Your task to perform on an android device: move a message to another label in the gmail app Image 0: 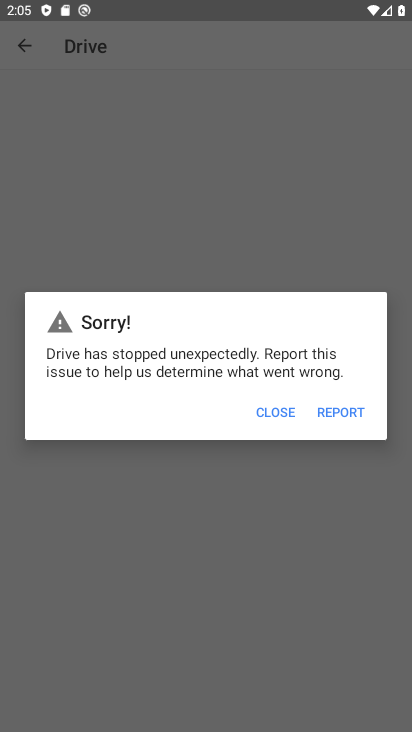
Step 0: press home button
Your task to perform on an android device: move a message to another label in the gmail app Image 1: 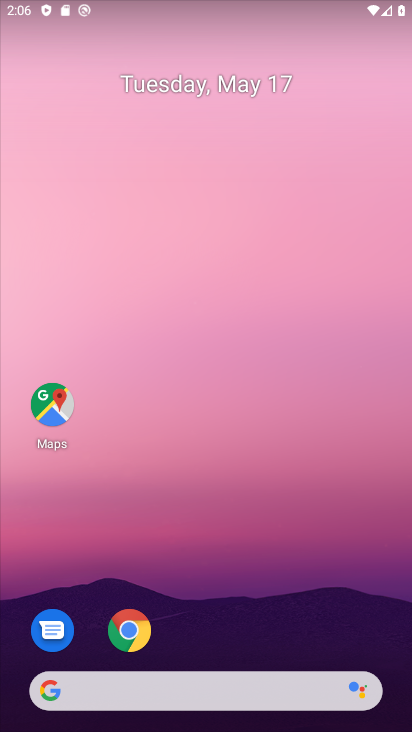
Step 1: drag from (198, 637) to (231, 95)
Your task to perform on an android device: move a message to another label in the gmail app Image 2: 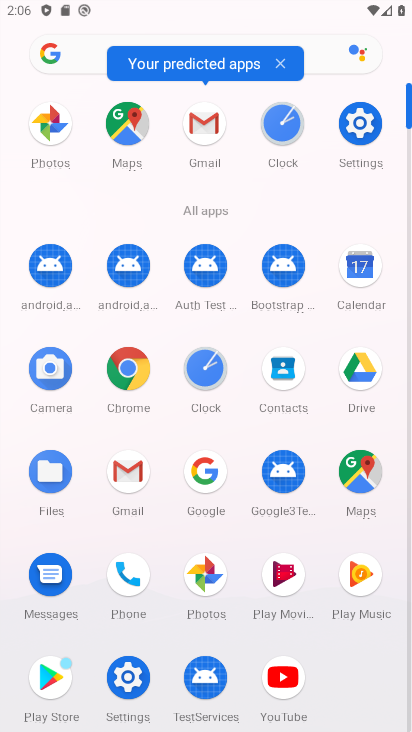
Step 2: click (202, 143)
Your task to perform on an android device: move a message to another label in the gmail app Image 3: 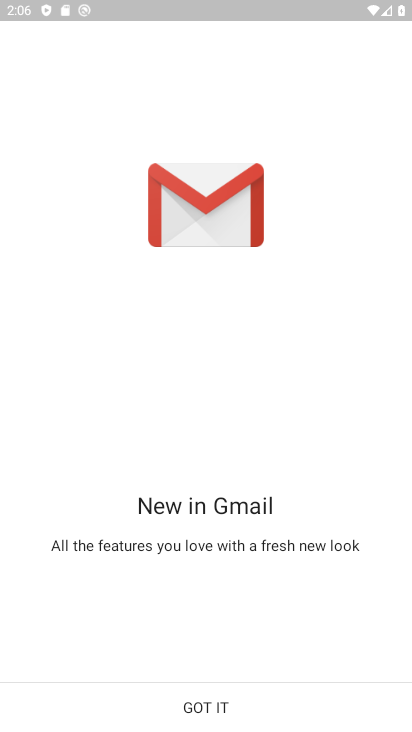
Step 3: click (239, 704)
Your task to perform on an android device: move a message to another label in the gmail app Image 4: 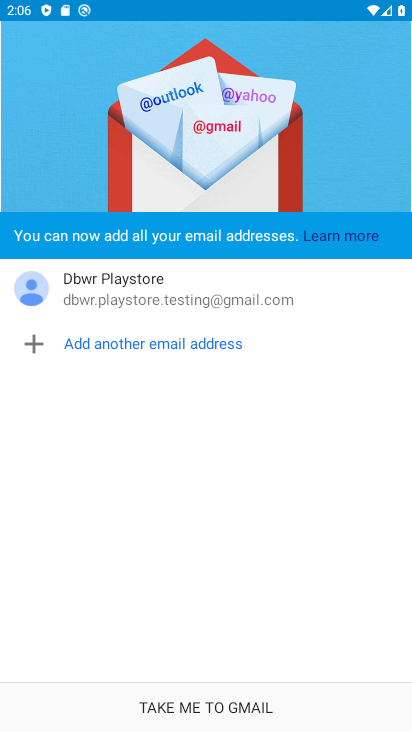
Step 4: click (202, 705)
Your task to perform on an android device: move a message to another label in the gmail app Image 5: 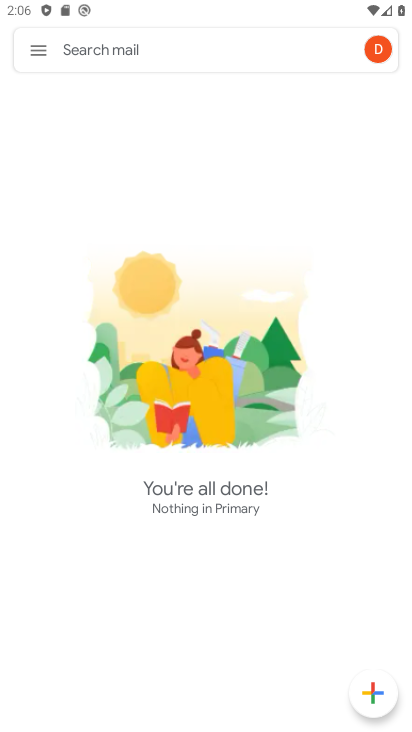
Step 5: click (53, 60)
Your task to perform on an android device: move a message to another label in the gmail app Image 6: 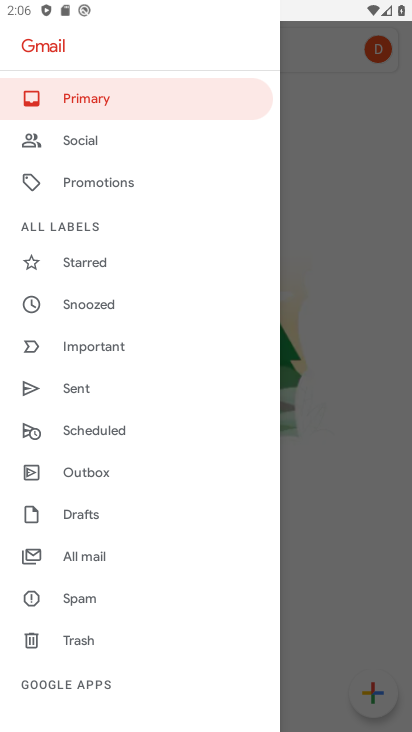
Step 6: click (91, 562)
Your task to perform on an android device: move a message to another label in the gmail app Image 7: 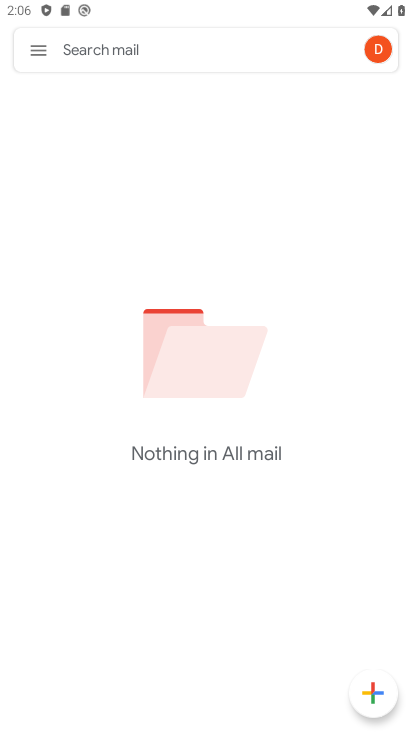
Step 7: task complete